Your task to perform on an android device: What is the news today? Image 0: 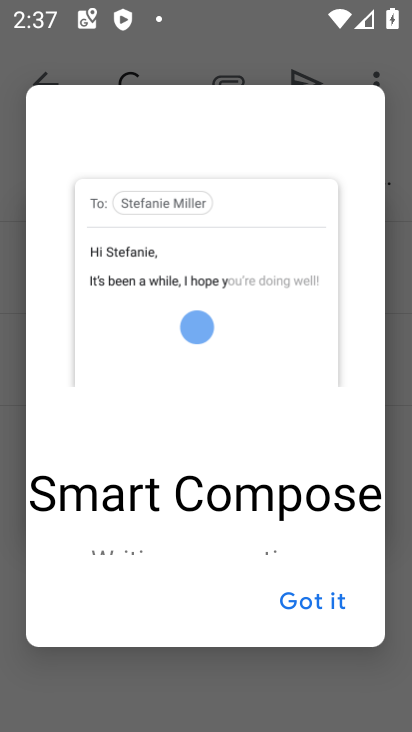
Step 0: click (318, 603)
Your task to perform on an android device: What is the news today? Image 1: 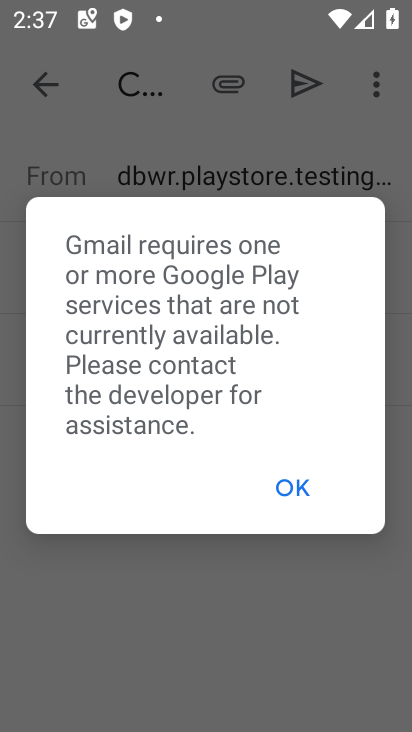
Step 1: press home button
Your task to perform on an android device: What is the news today? Image 2: 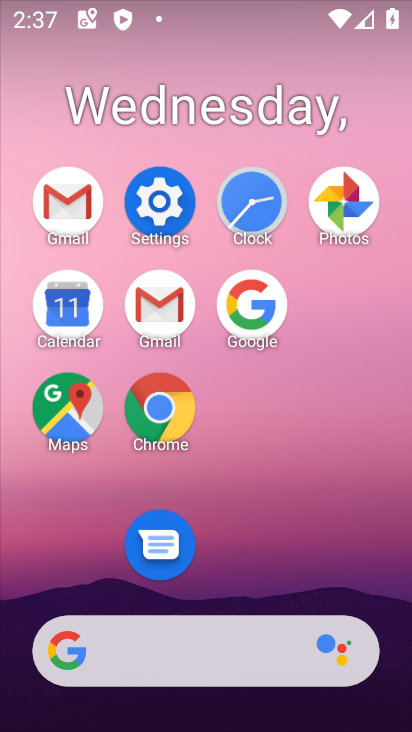
Step 2: click (248, 314)
Your task to perform on an android device: What is the news today? Image 3: 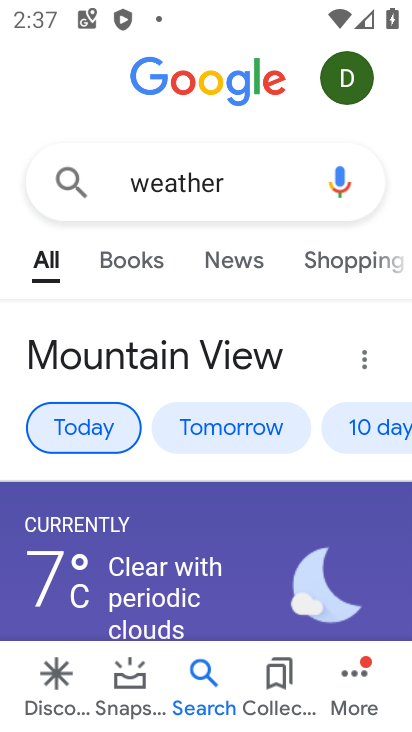
Step 3: click (237, 176)
Your task to perform on an android device: What is the news today? Image 4: 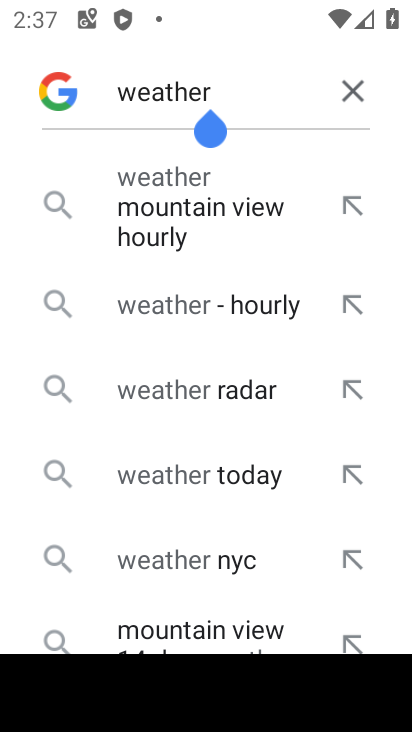
Step 4: click (362, 83)
Your task to perform on an android device: What is the news today? Image 5: 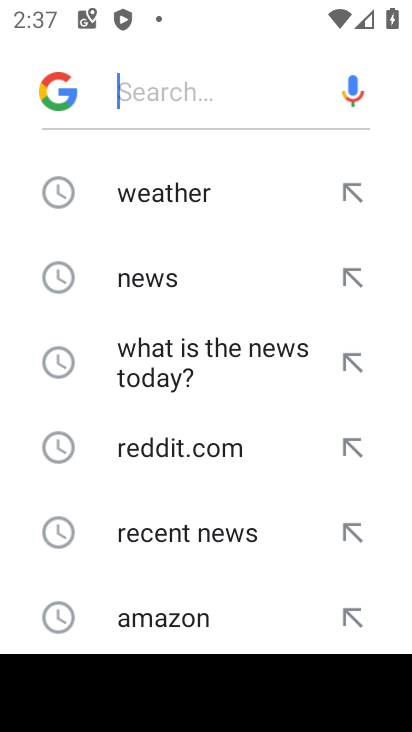
Step 5: click (163, 270)
Your task to perform on an android device: What is the news today? Image 6: 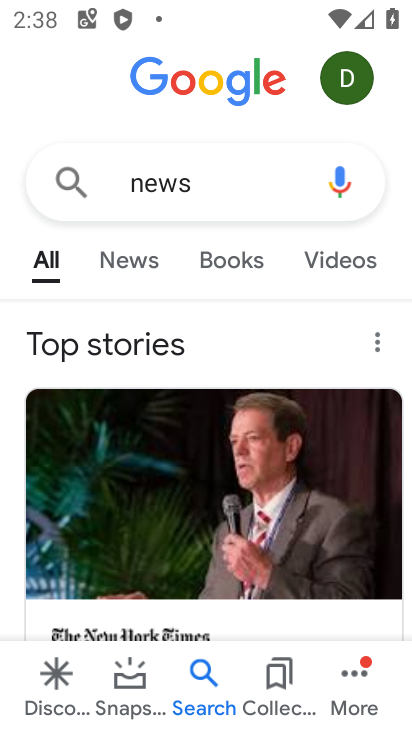
Step 6: task complete